Your task to perform on an android device: change the clock display to analog Image 0: 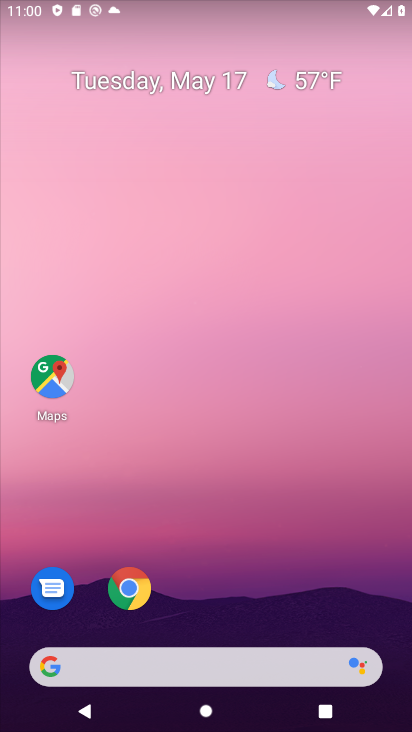
Step 0: drag from (229, 601) to (247, 198)
Your task to perform on an android device: change the clock display to analog Image 1: 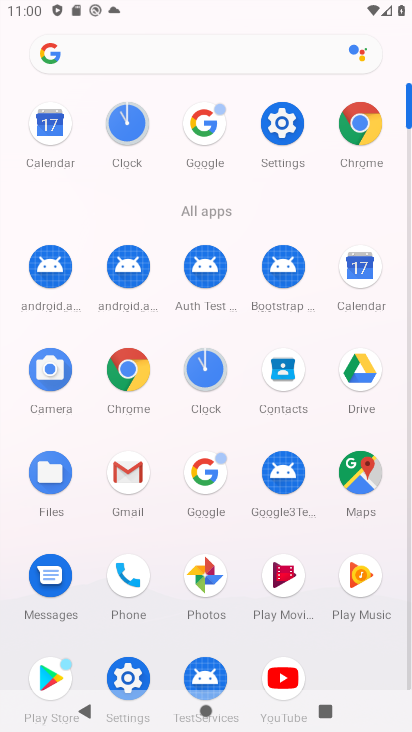
Step 1: click (211, 369)
Your task to perform on an android device: change the clock display to analog Image 2: 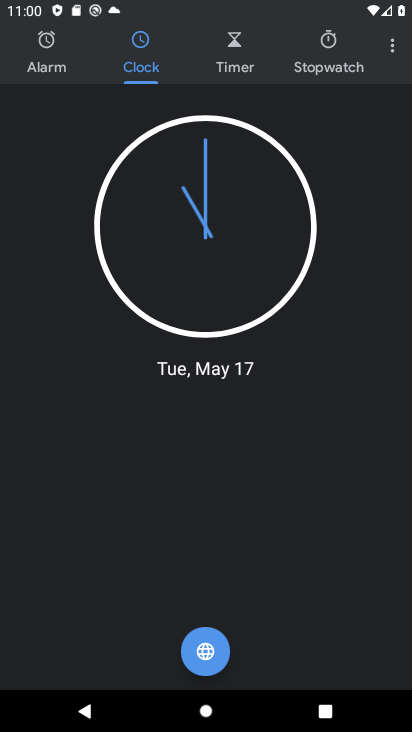
Step 2: click (389, 53)
Your task to perform on an android device: change the clock display to analog Image 3: 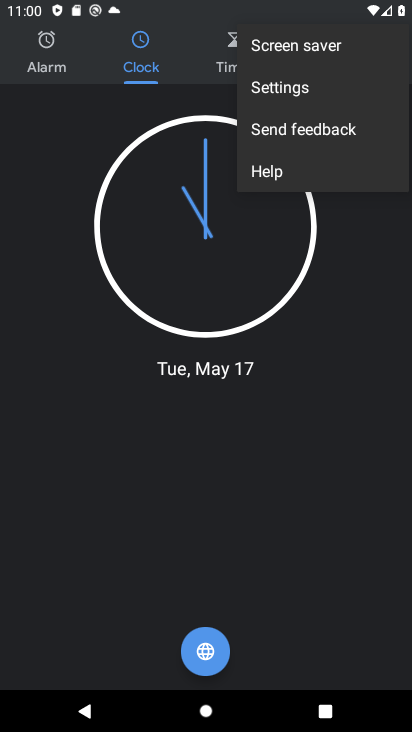
Step 3: click (323, 93)
Your task to perform on an android device: change the clock display to analog Image 4: 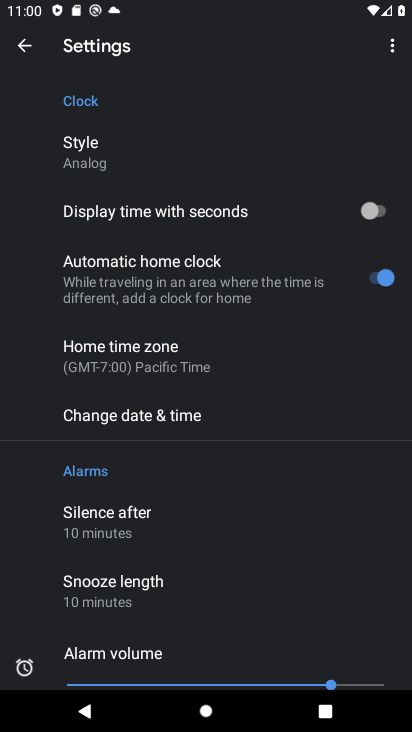
Step 4: task complete